Your task to perform on an android device: Search for pizza restaurants on Maps Image 0: 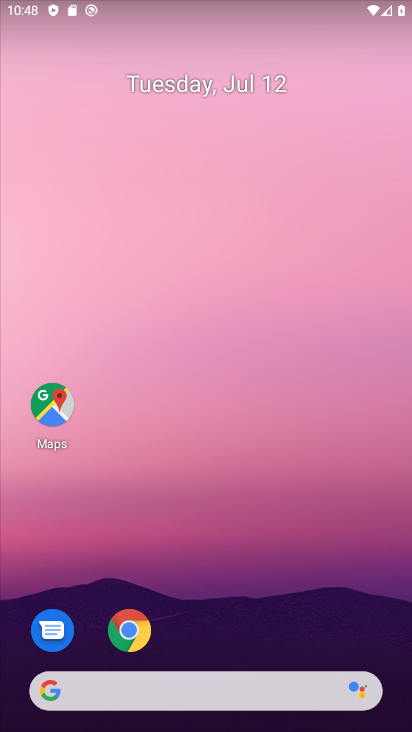
Step 0: drag from (297, 507) to (221, 54)
Your task to perform on an android device: Search for pizza restaurants on Maps Image 1: 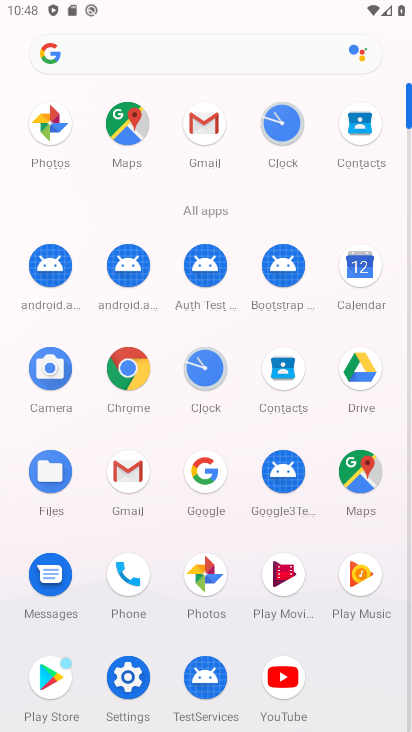
Step 1: click (362, 459)
Your task to perform on an android device: Search for pizza restaurants on Maps Image 2: 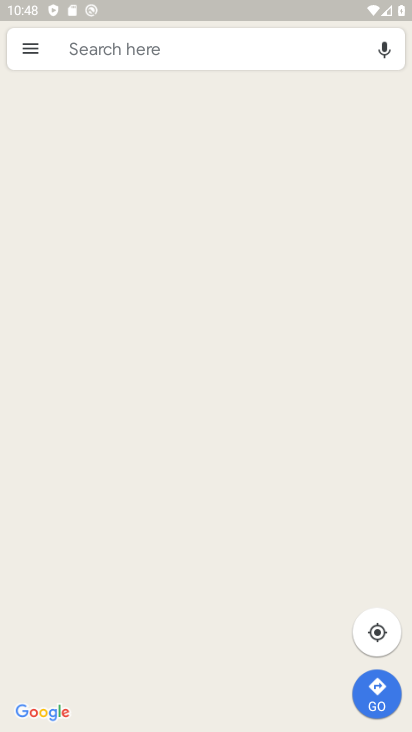
Step 2: click (197, 48)
Your task to perform on an android device: Search for pizza restaurants on Maps Image 3: 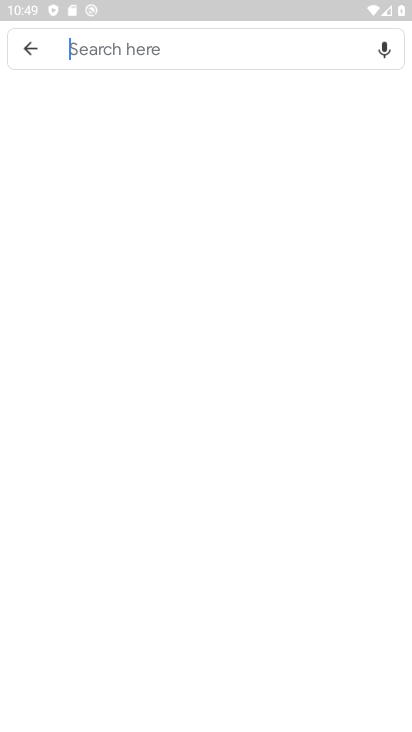
Step 3: click (211, 47)
Your task to perform on an android device: Search for pizza restaurants on Maps Image 4: 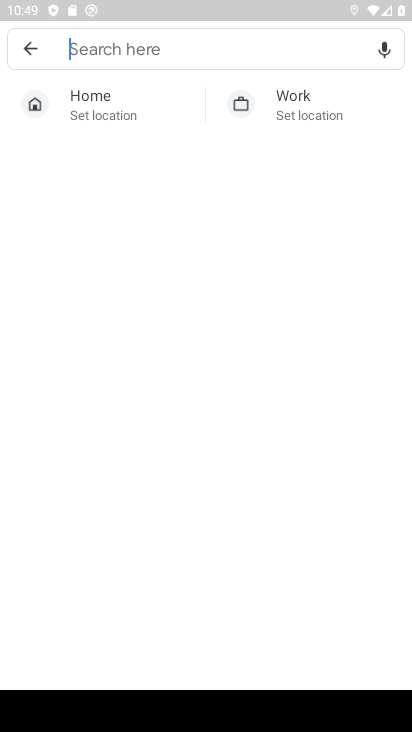
Step 4: type "pizza restaurants"
Your task to perform on an android device: Search for pizza restaurants on Maps Image 5: 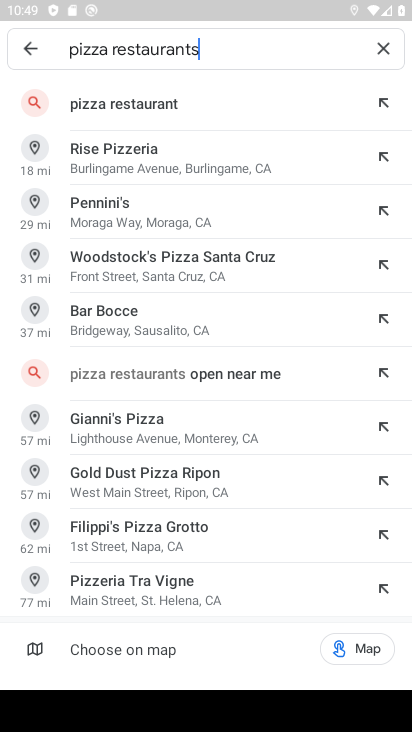
Step 5: press enter
Your task to perform on an android device: Search for pizza restaurants on Maps Image 6: 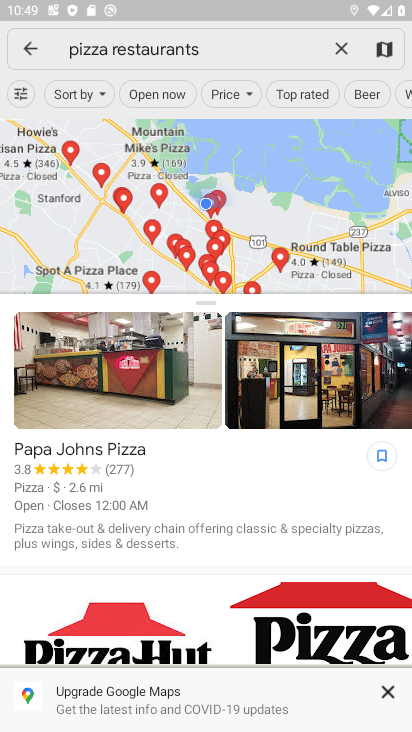
Step 6: task complete